Your task to perform on an android device: Go to battery settings Image 0: 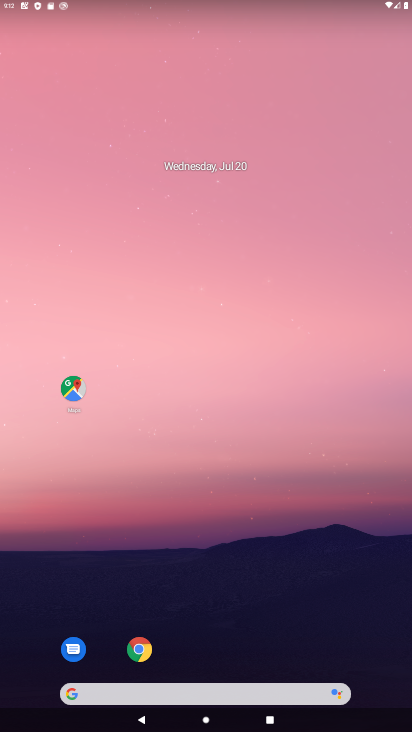
Step 0: drag from (263, 668) to (305, 245)
Your task to perform on an android device: Go to battery settings Image 1: 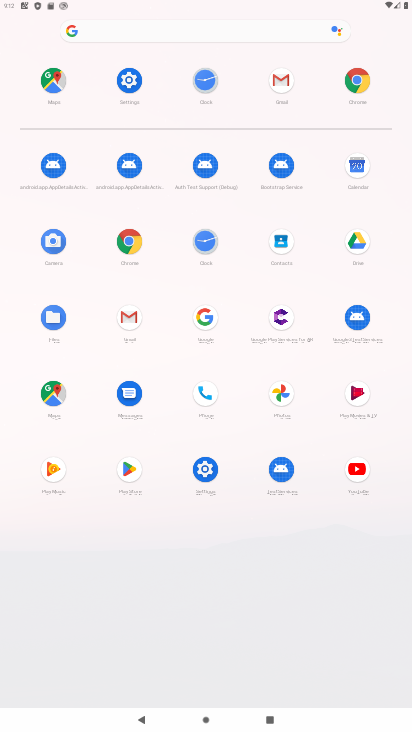
Step 1: click (125, 97)
Your task to perform on an android device: Go to battery settings Image 2: 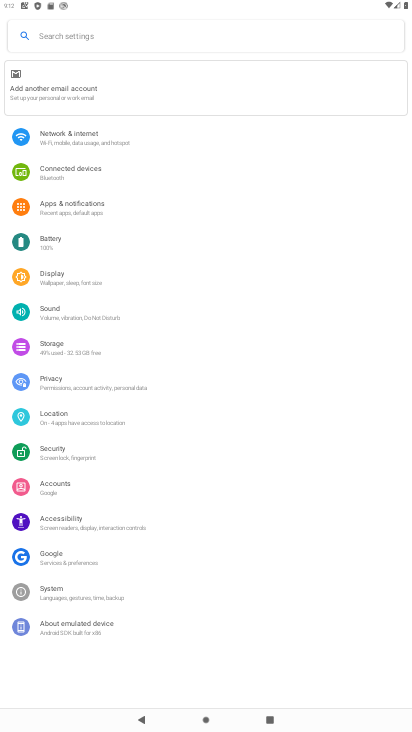
Step 2: click (83, 241)
Your task to perform on an android device: Go to battery settings Image 3: 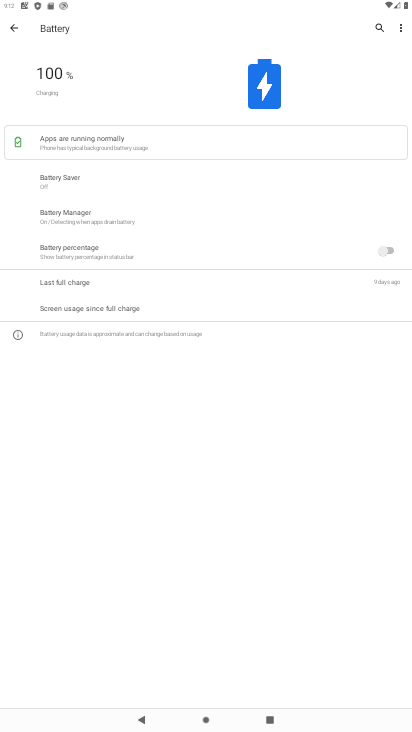
Step 3: task complete